Your task to perform on an android device: show emergency info Image 0: 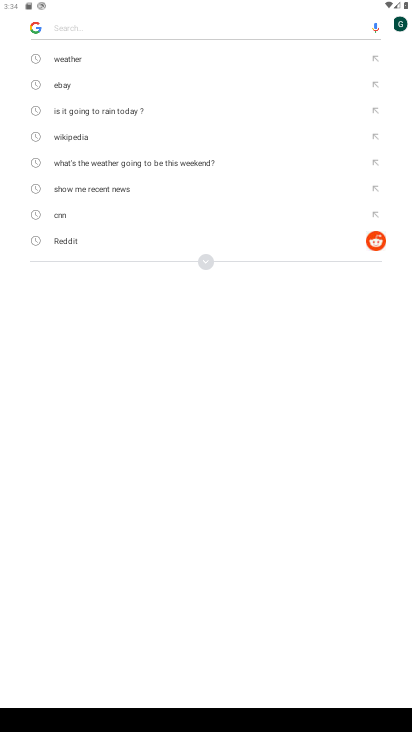
Step 0: press home button
Your task to perform on an android device: show emergency info Image 1: 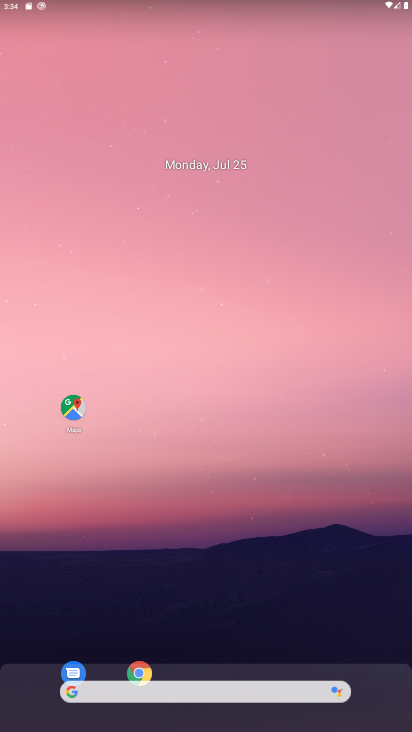
Step 1: drag from (362, 647) to (263, 87)
Your task to perform on an android device: show emergency info Image 2: 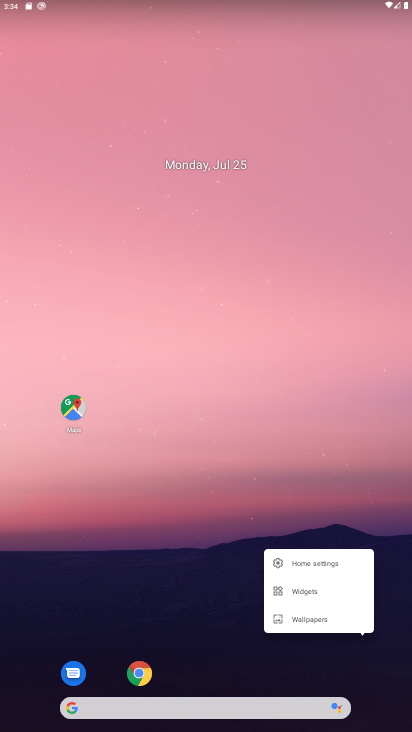
Step 2: click (235, 628)
Your task to perform on an android device: show emergency info Image 3: 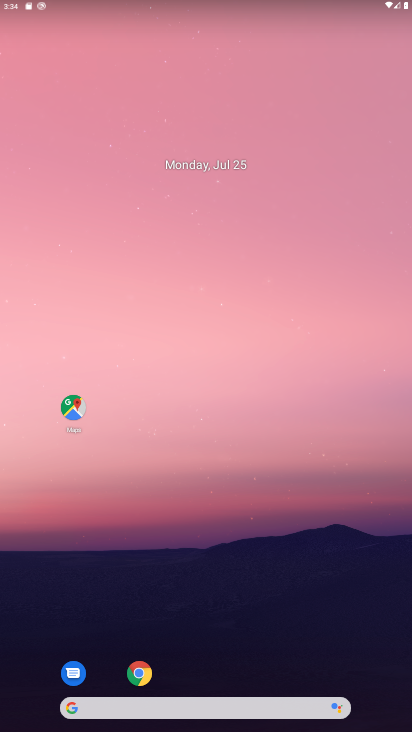
Step 3: drag from (318, 679) to (237, 182)
Your task to perform on an android device: show emergency info Image 4: 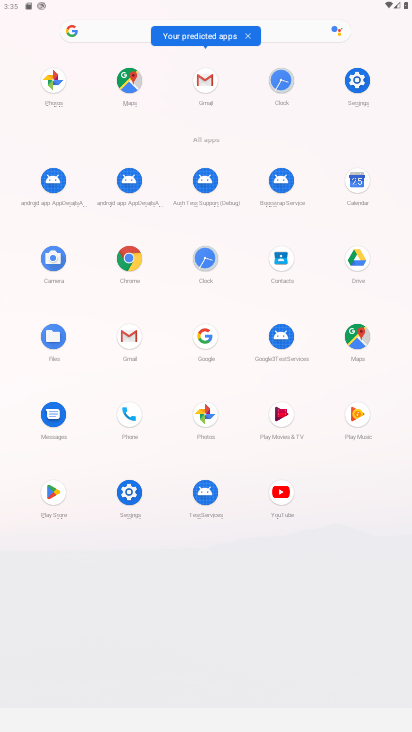
Step 4: click (127, 497)
Your task to perform on an android device: show emergency info Image 5: 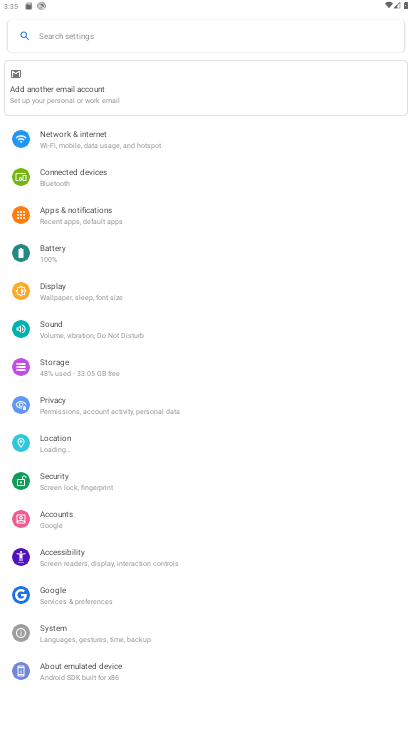
Step 5: click (106, 676)
Your task to perform on an android device: show emergency info Image 6: 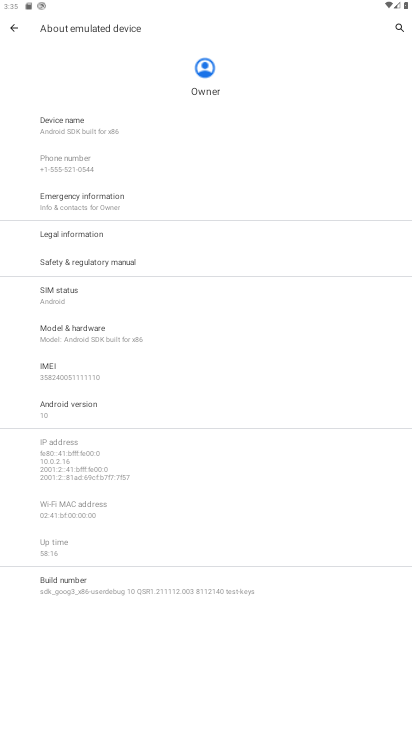
Step 6: click (144, 198)
Your task to perform on an android device: show emergency info Image 7: 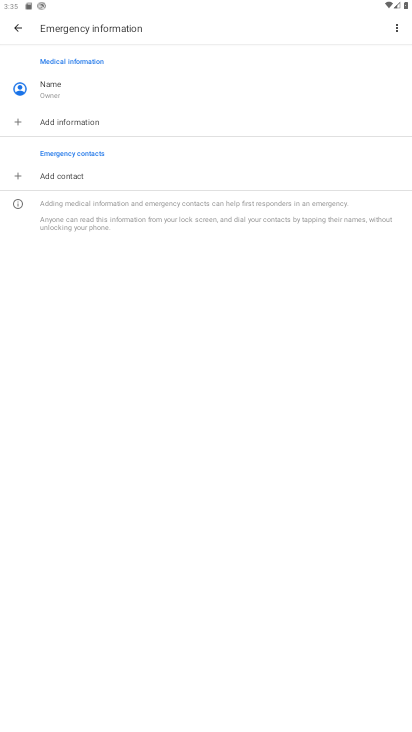
Step 7: task complete